Your task to perform on an android device: Open Google Chrome and open the bookmarks view Image 0: 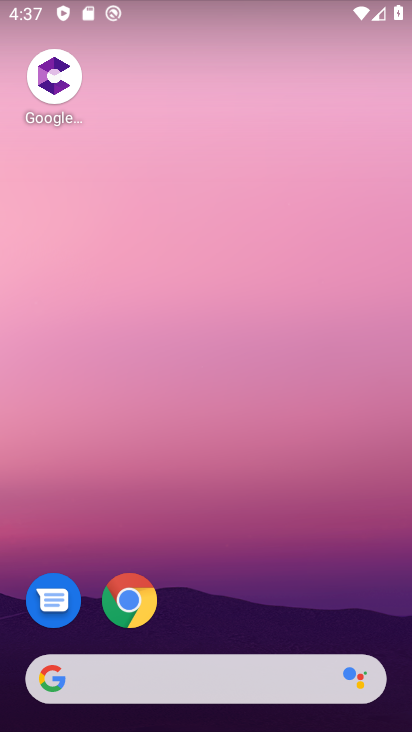
Step 0: click (142, 613)
Your task to perform on an android device: Open Google Chrome and open the bookmarks view Image 1: 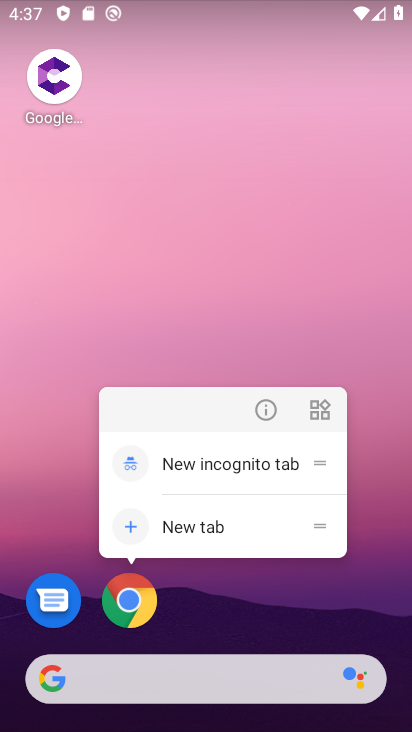
Step 1: click (142, 613)
Your task to perform on an android device: Open Google Chrome and open the bookmarks view Image 2: 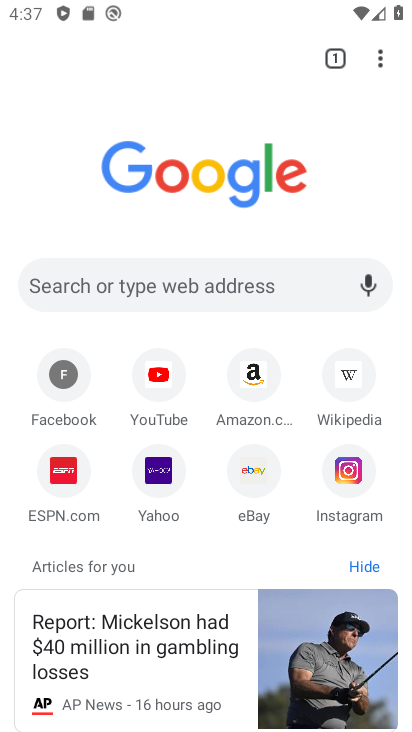
Step 2: task complete